Your task to perform on an android device: Open Google Chrome and click the shortcut for Amazon.com Image 0: 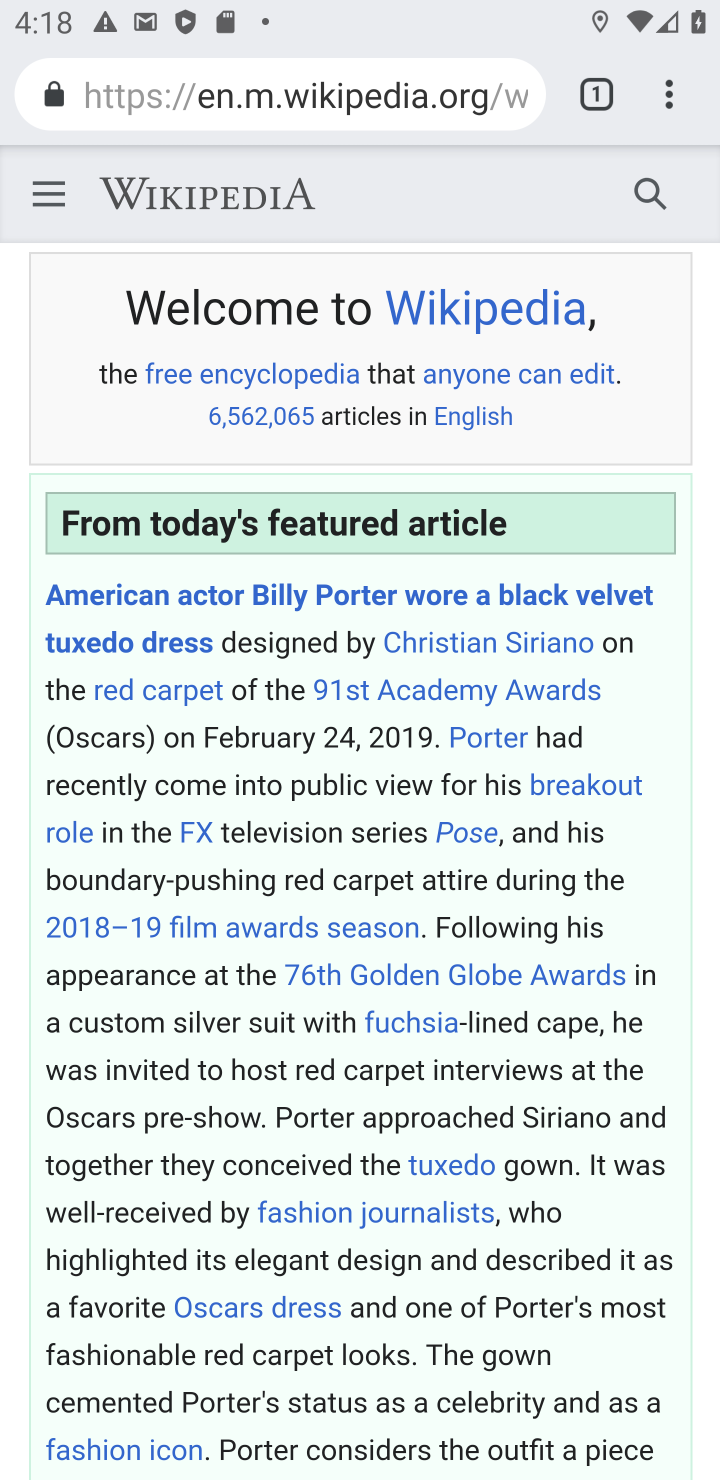
Step 0: press home button
Your task to perform on an android device: Open Google Chrome and click the shortcut for Amazon.com Image 1: 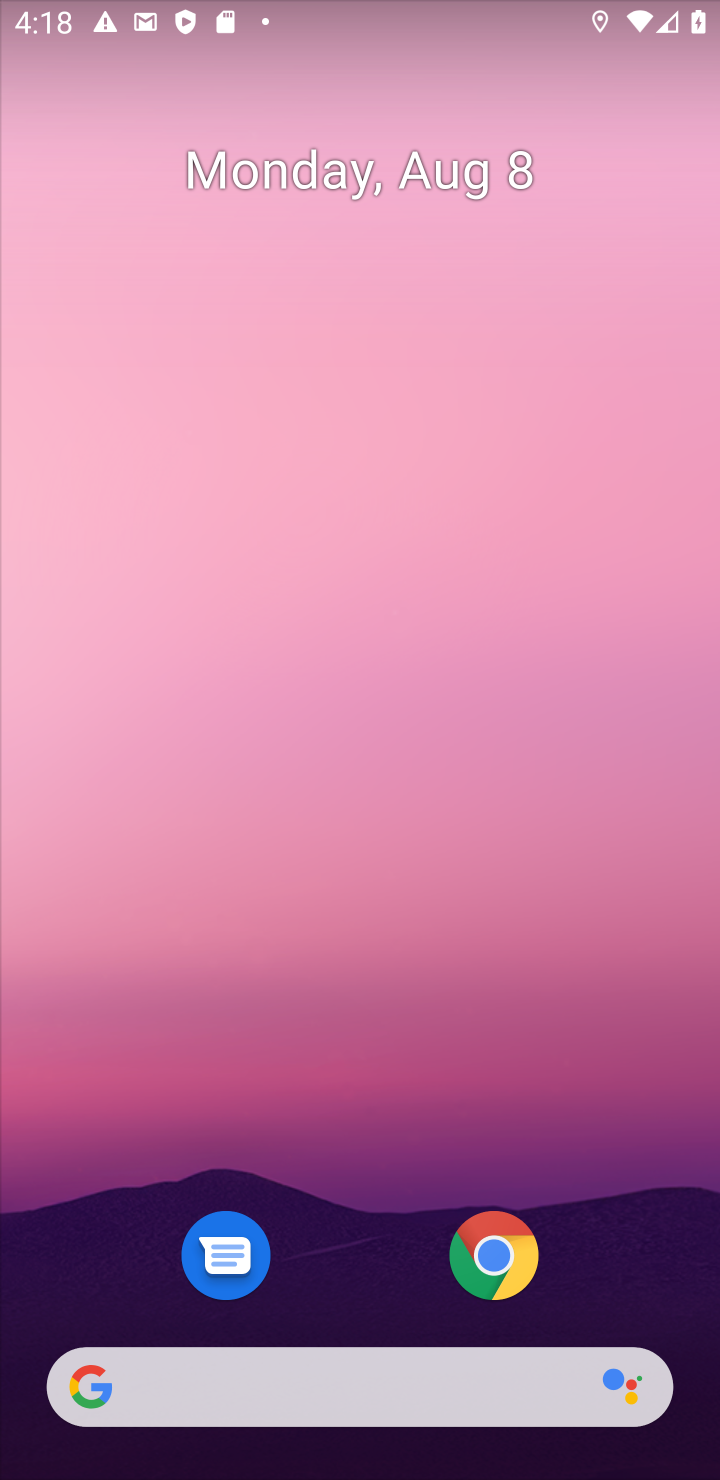
Step 1: click (497, 1258)
Your task to perform on an android device: Open Google Chrome and click the shortcut for Amazon.com Image 2: 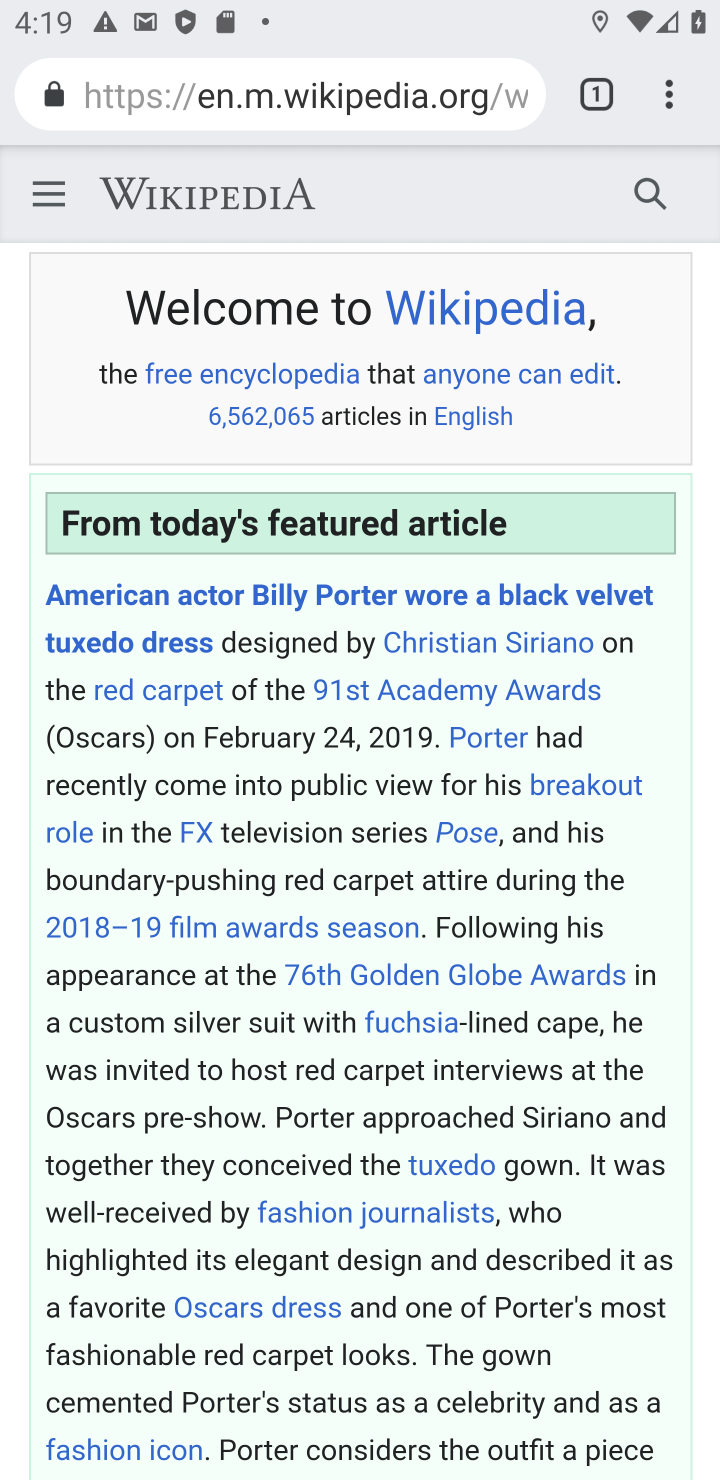
Step 2: click (403, 97)
Your task to perform on an android device: Open Google Chrome and click the shortcut for Amazon.com Image 3: 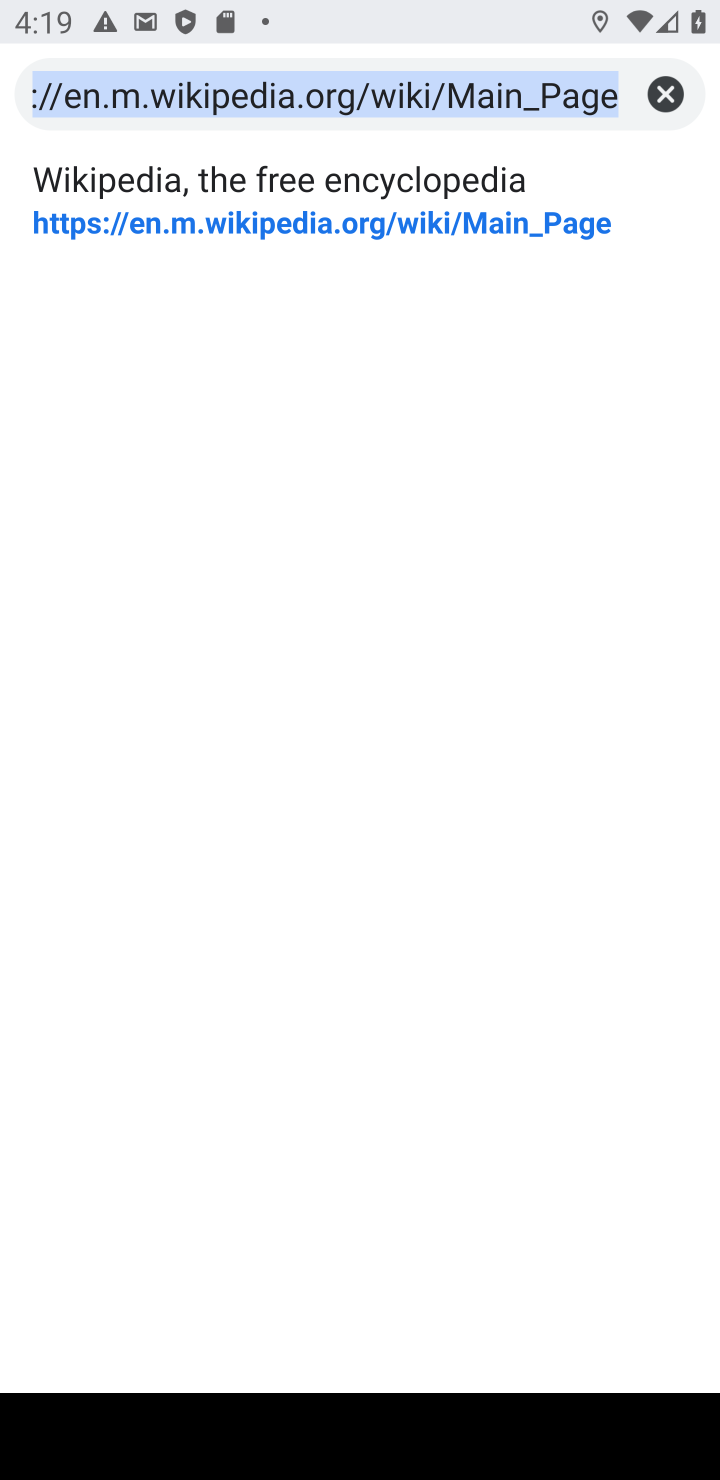
Step 3: type "Amazon.com"
Your task to perform on an android device: Open Google Chrome and click the shortcut for Amazon.com Image 4: 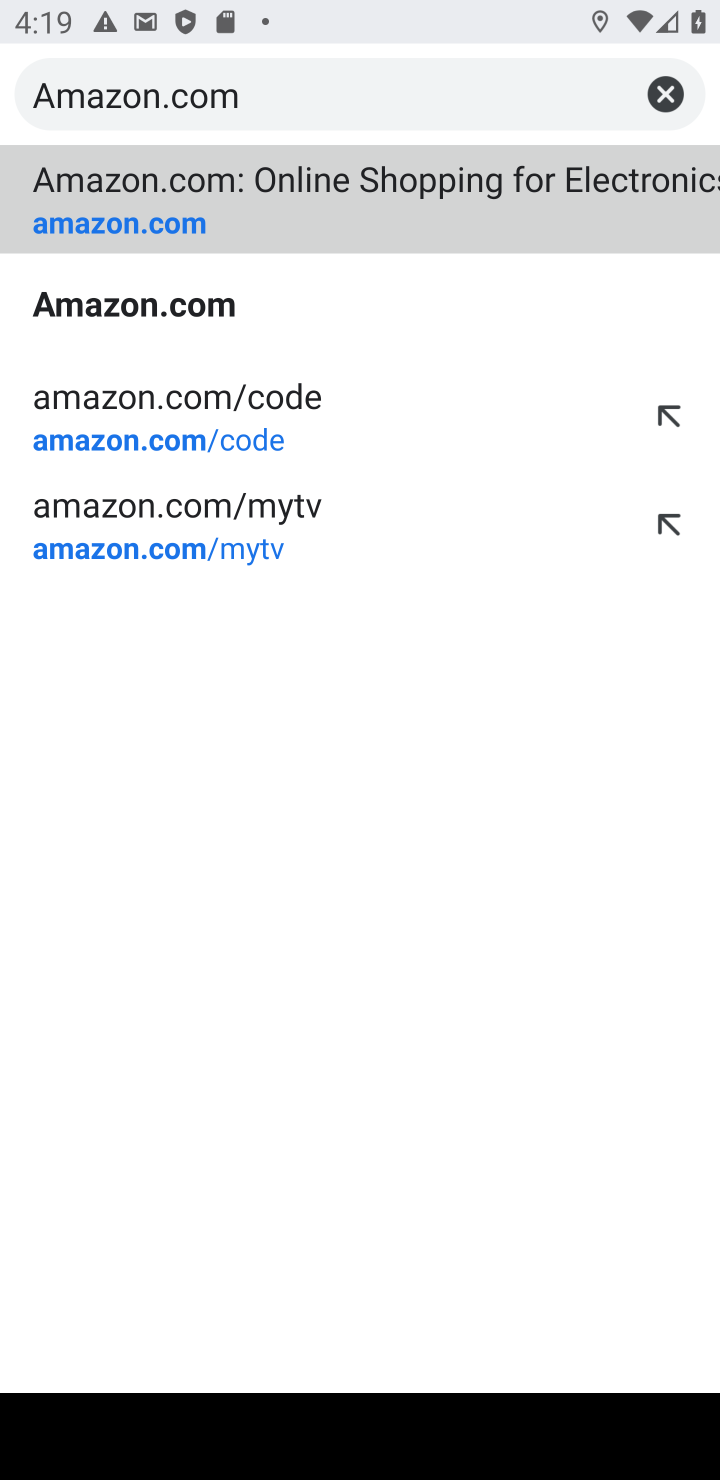
Step 4: click (194, 304)
Your task to perform on an android device: Open Google Chrome and click the shortcut for Amazon.com Image 5: 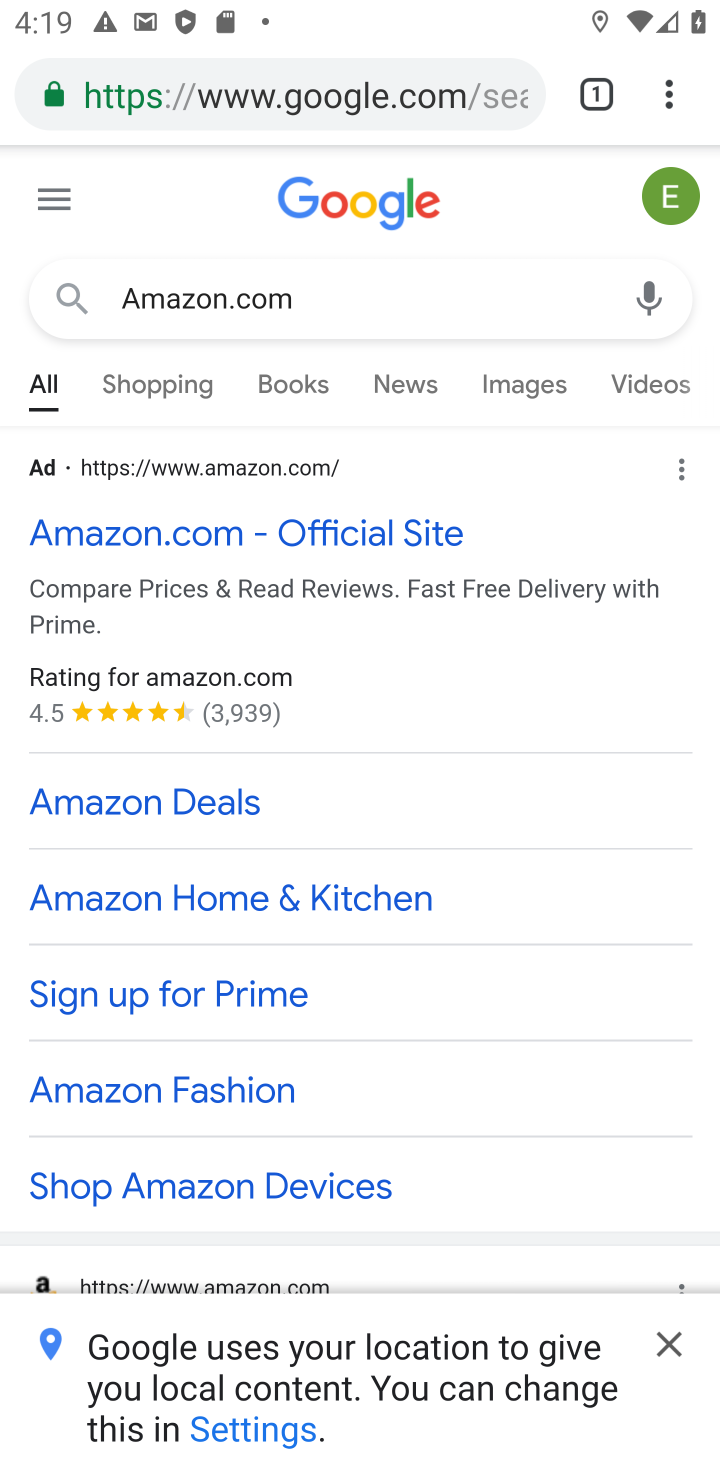
Step 5: drag from (300, 1087) to (463, 802)
Your task to perform on an android device: Open Google Chrome and click the shortcut for Amazon.com Image 6: 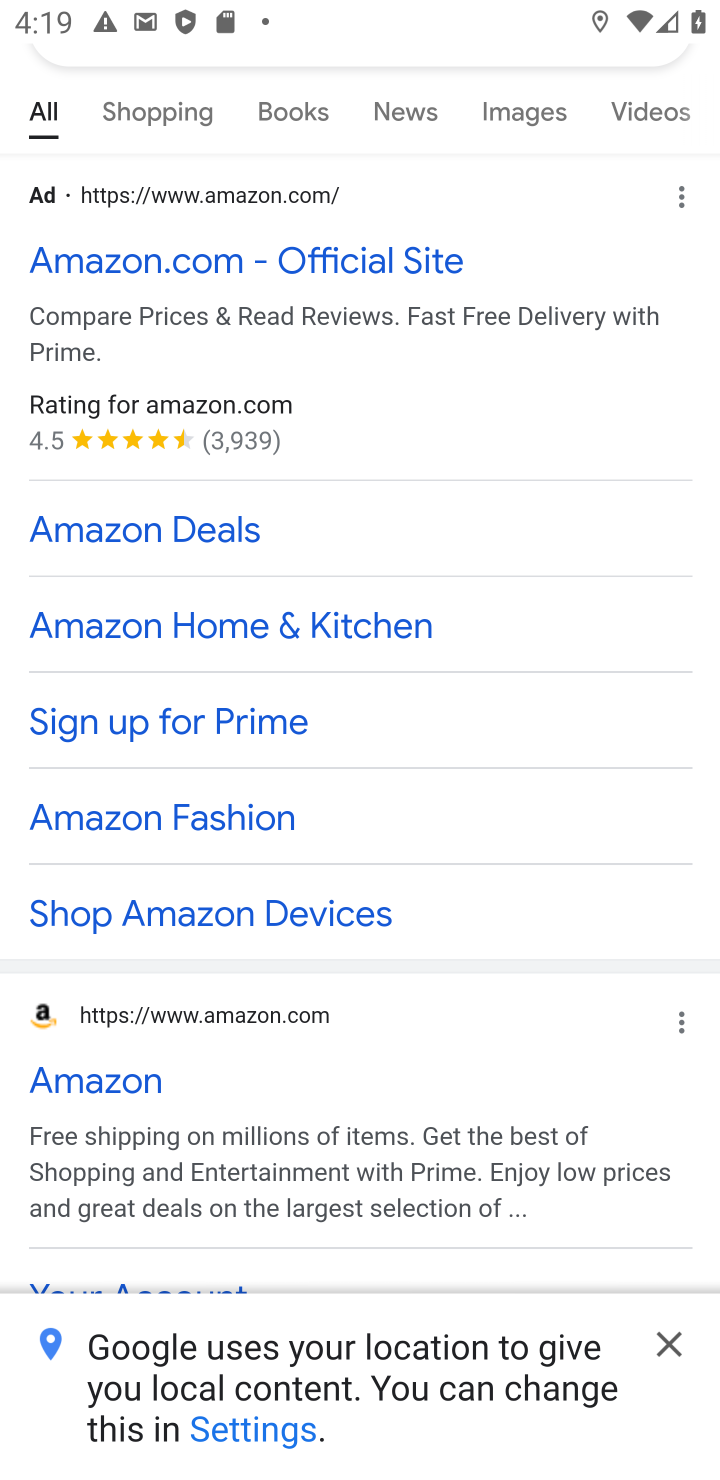
Step 6: click (117, 1086)
Your task to perform on an android device: Open Google Chrome and click the shortcut for Amazon.com Image 7: 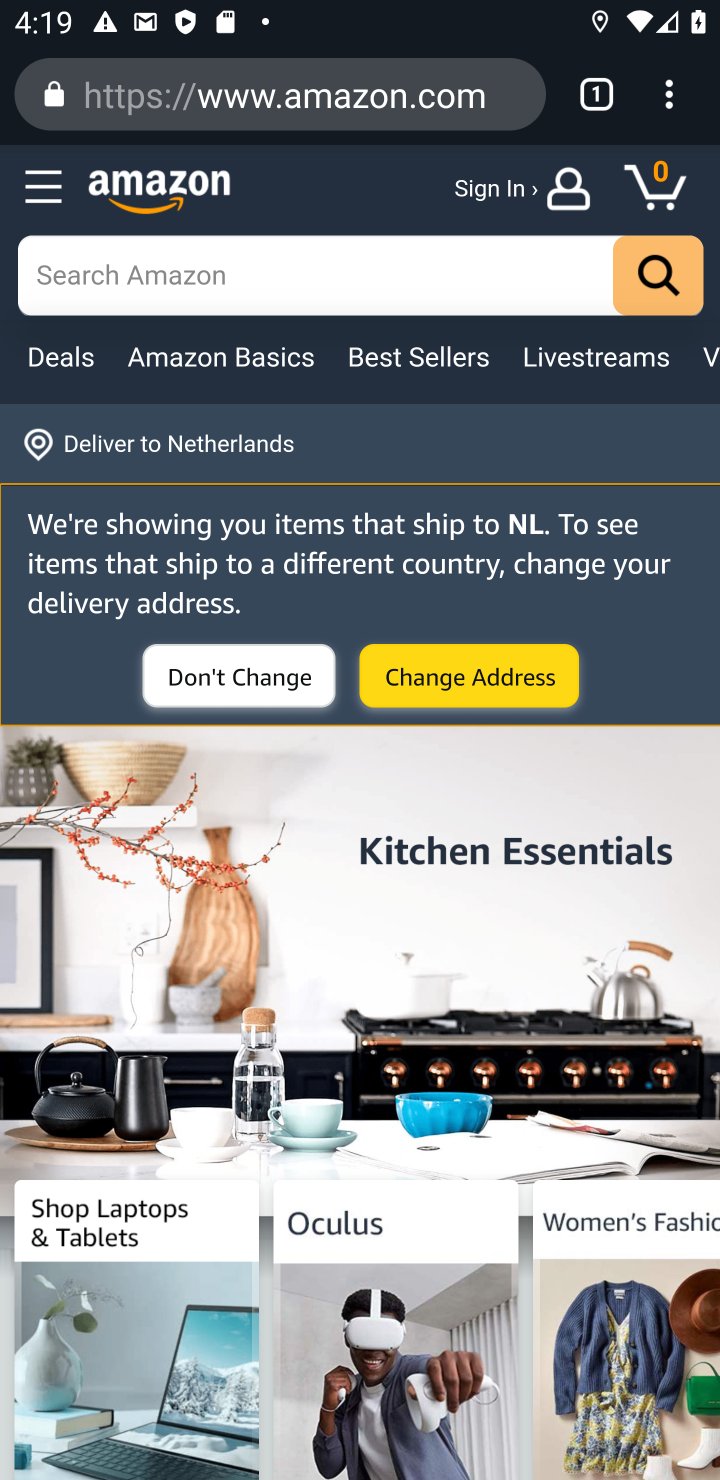
Step 7: click (670, 94)
Your task to perform on an android device: Open Google Chrome and click the shortcut for Amazon.com Image 8: 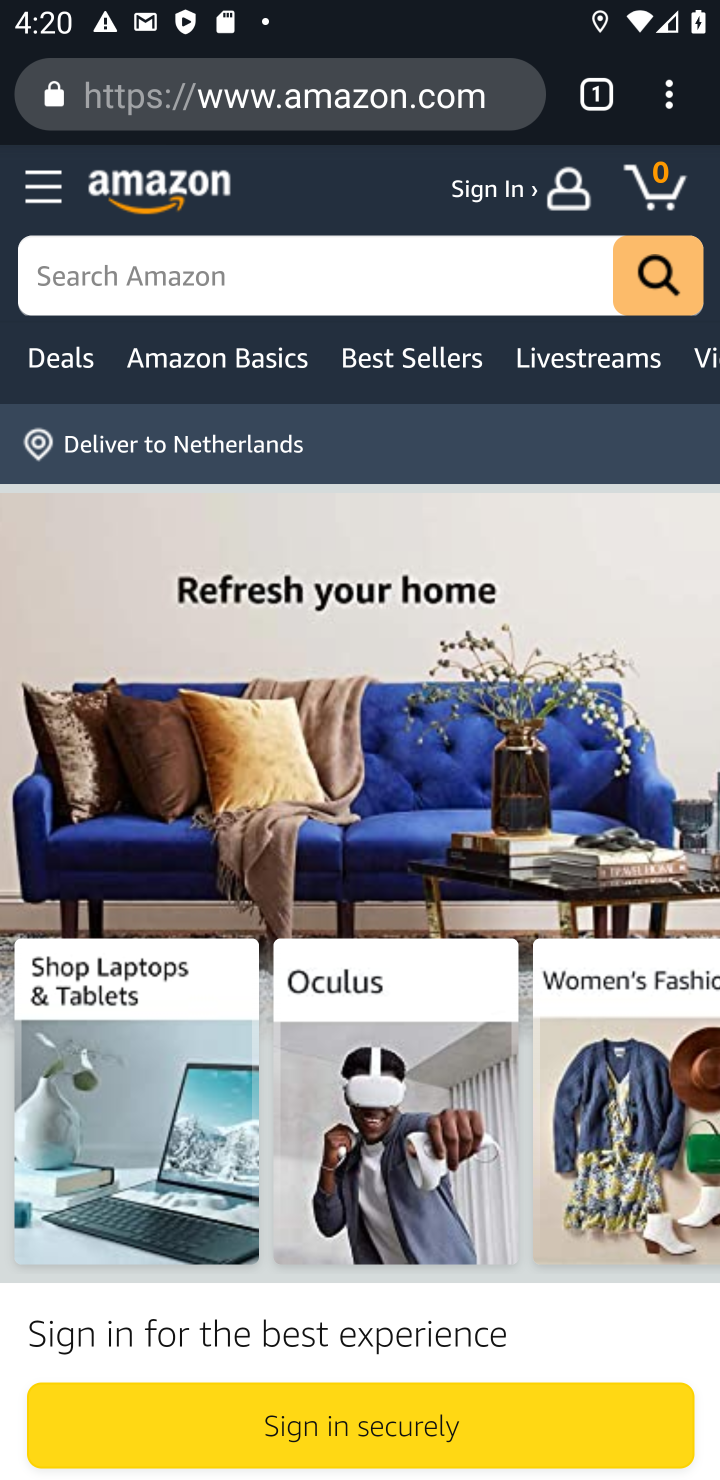
Step 8: drag from (670, 94) to (441, 875)
Your task to perform on an android device: Open Google Chrome and click the shortcut for Amazon.com Image 9: 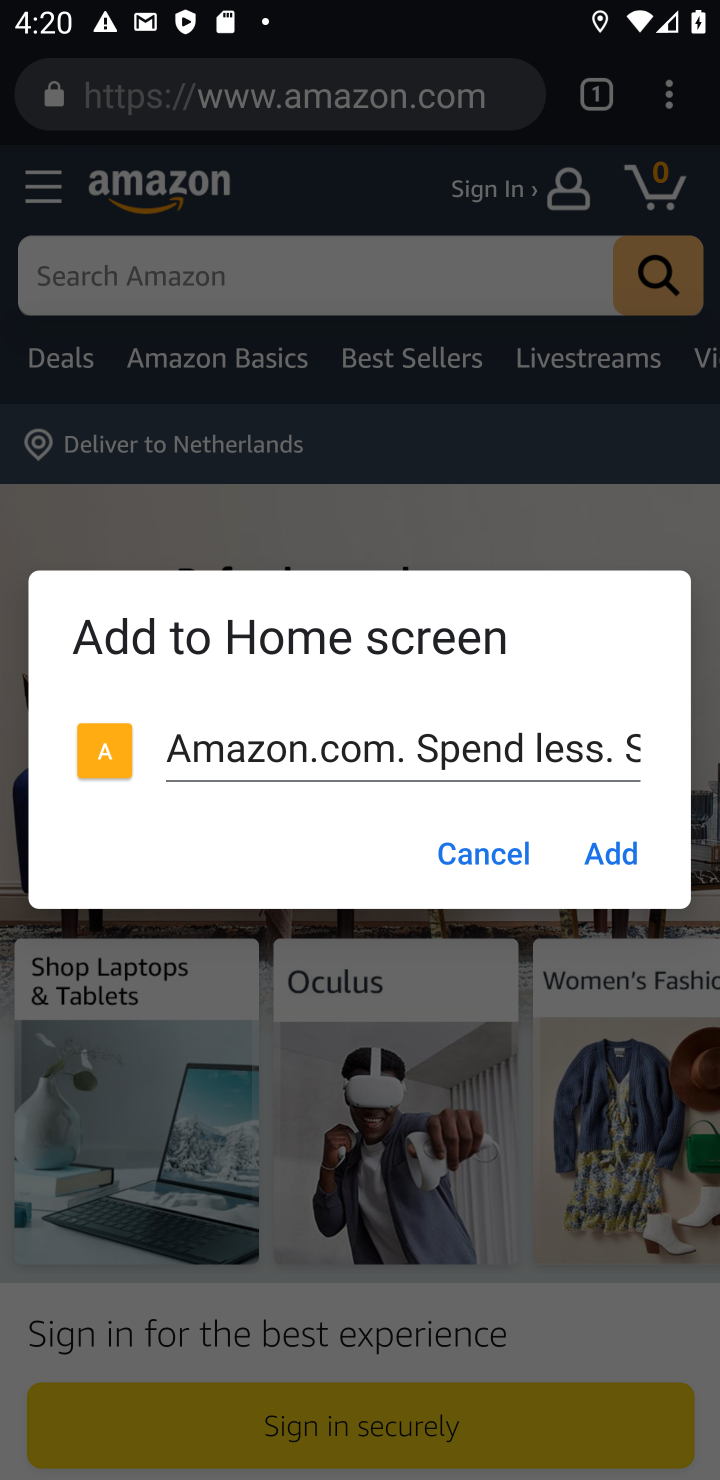
Step 9: click (599, 859)
Your task to perform on an android device: Open Google Chrome and click the shortcut for Amazon.com Image 10: 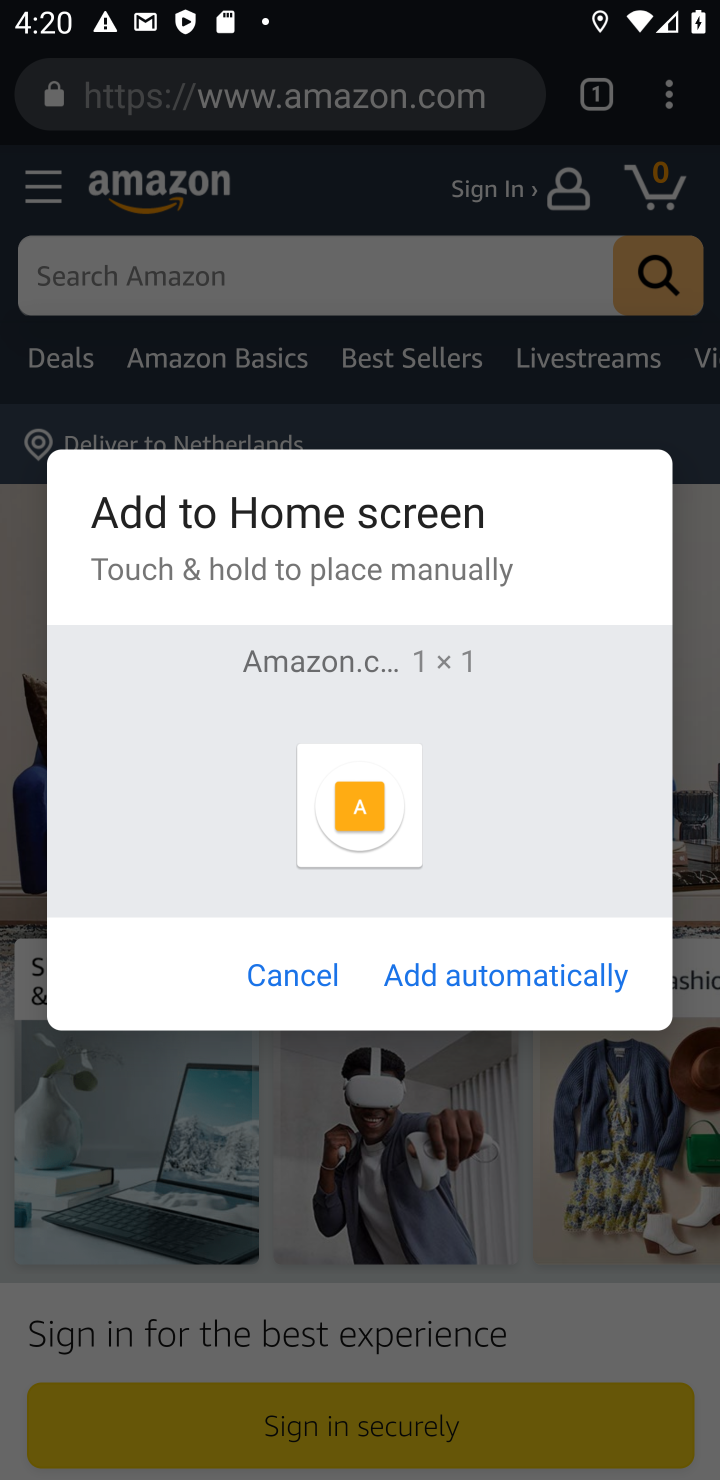
Step 10: click (501, 960)
Your task to perform on an android device: Open Google Chrome and click the shortcut for Amazon.com Image 11: 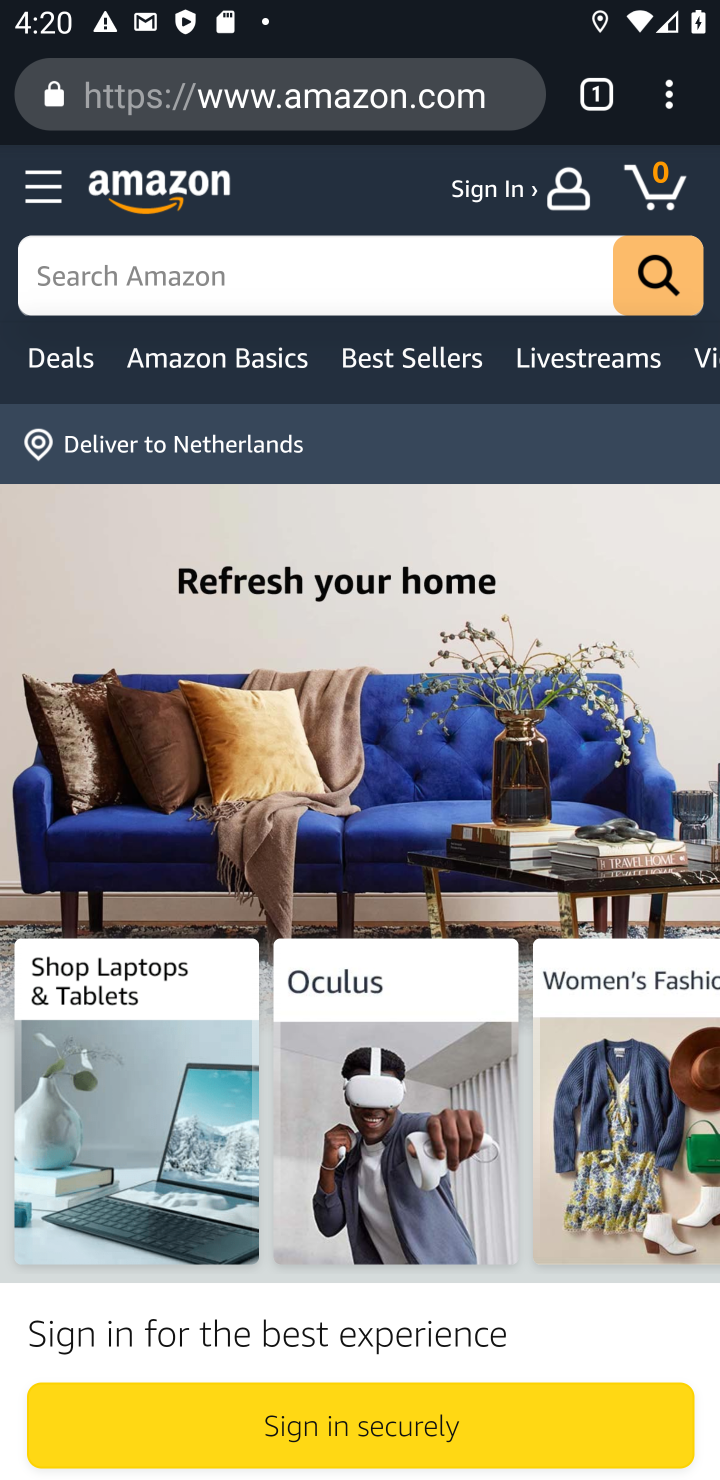
Step 11: task complete